Your task to perform on an android device: turn notification dots on Image 0: 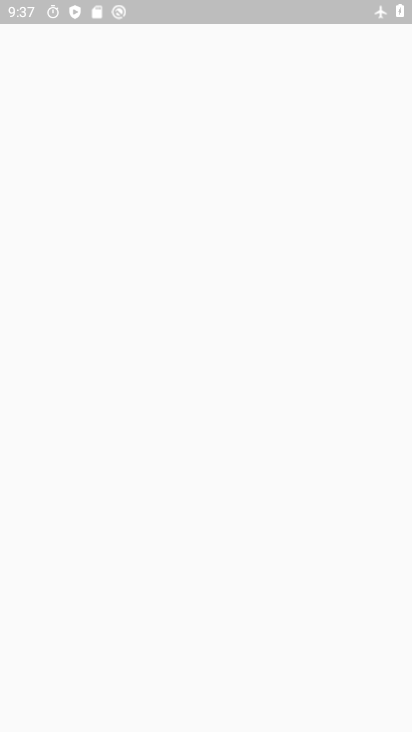
Step 0: press back button
Your task to perform on an android device: turn notification dots on Image 1: 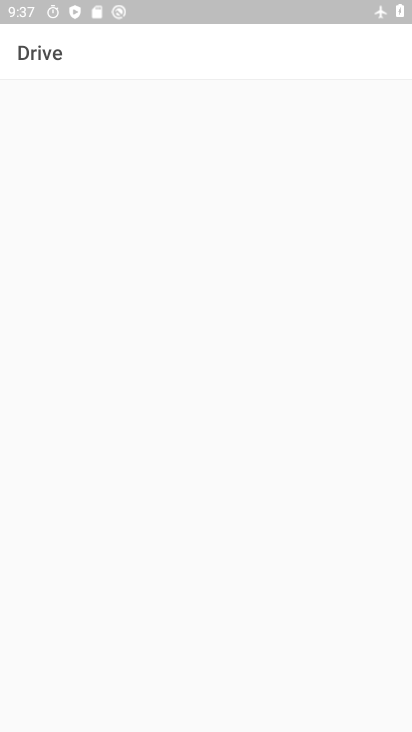
Step 1: press home button
Your task to perform on an android device: turn notification dots on Image 2: 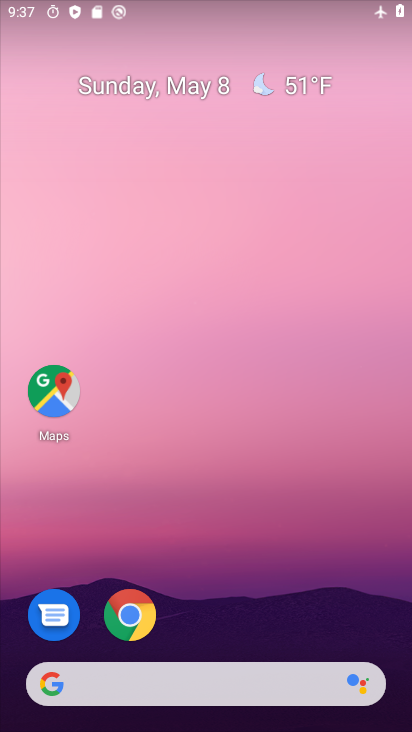
Step 2: drag from (190, 614) to (214, 203)
Your task to perform on an android device: turn notification dots on Image 3: 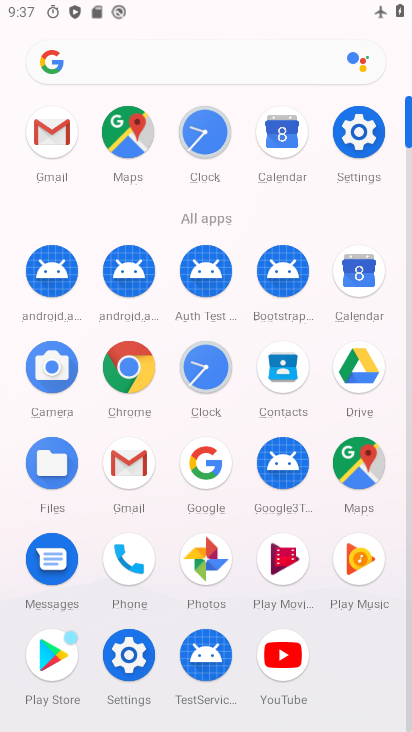
Step 3: click (372, 127)
Your task to perform on an android device: turn notification dots on Image 4: 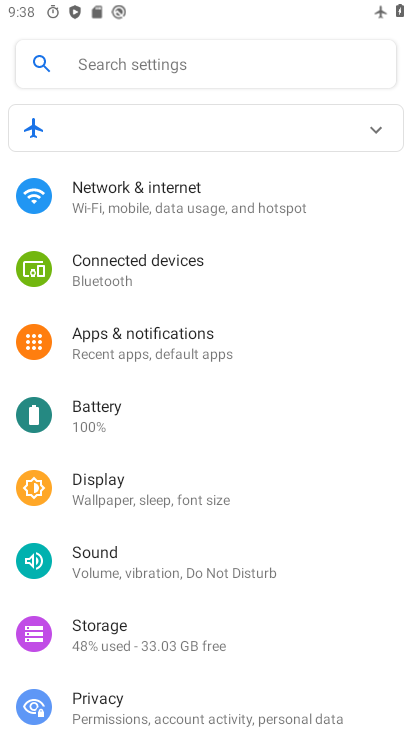
Step 4: click (158, 328)
Your task to perform on an android device: turn notification dots on Image 5: 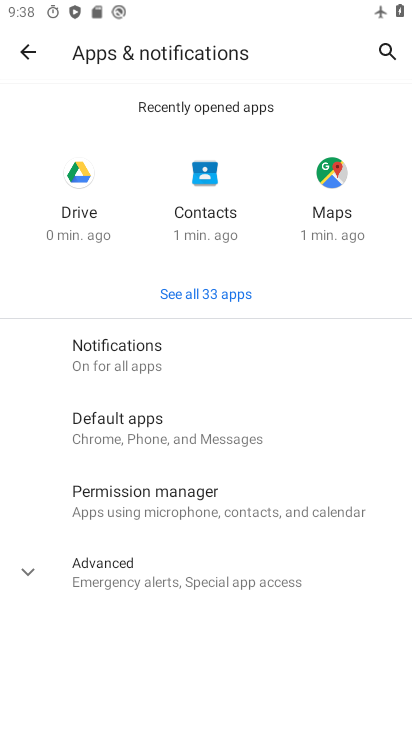
Step 5: click (152, 352)
Your task to perform on an android device: turn notification dots on Image 6: 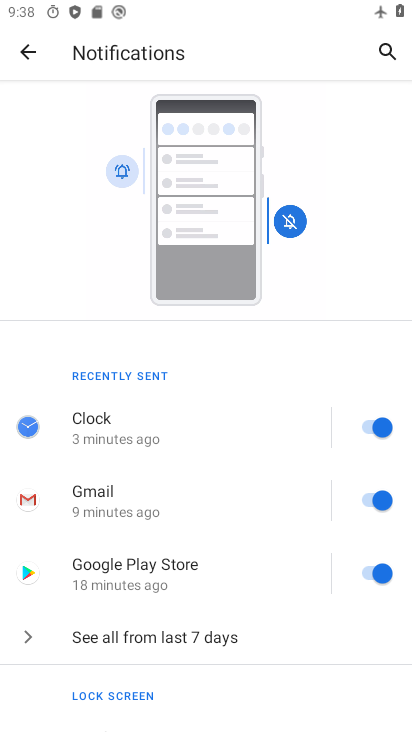
Step 6: drag from (223, 606) to (258, 258)
Your task to perform on an android device: turn notification dots on Image 7: 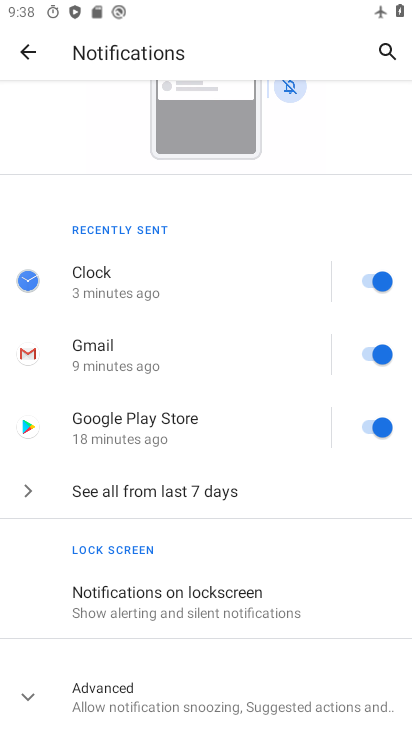
Step 7: click (208, 693)
Your task to perform on an android device: turn notification dots on Image 8: 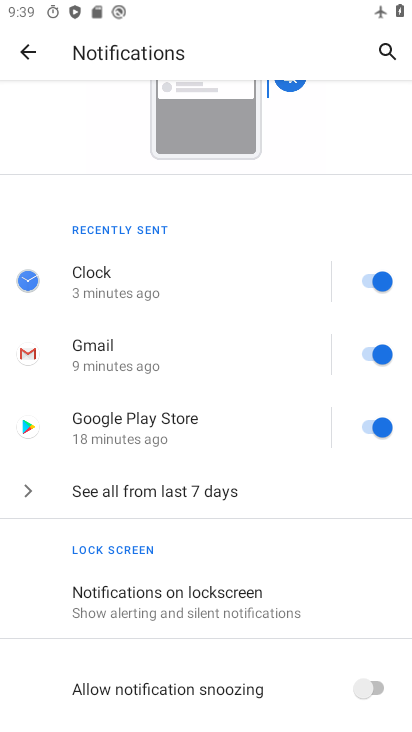
Step 8: task complete